Your task to perform on an android device: How much does a 3 bedroom apartment rent for in Boston? Image 0: 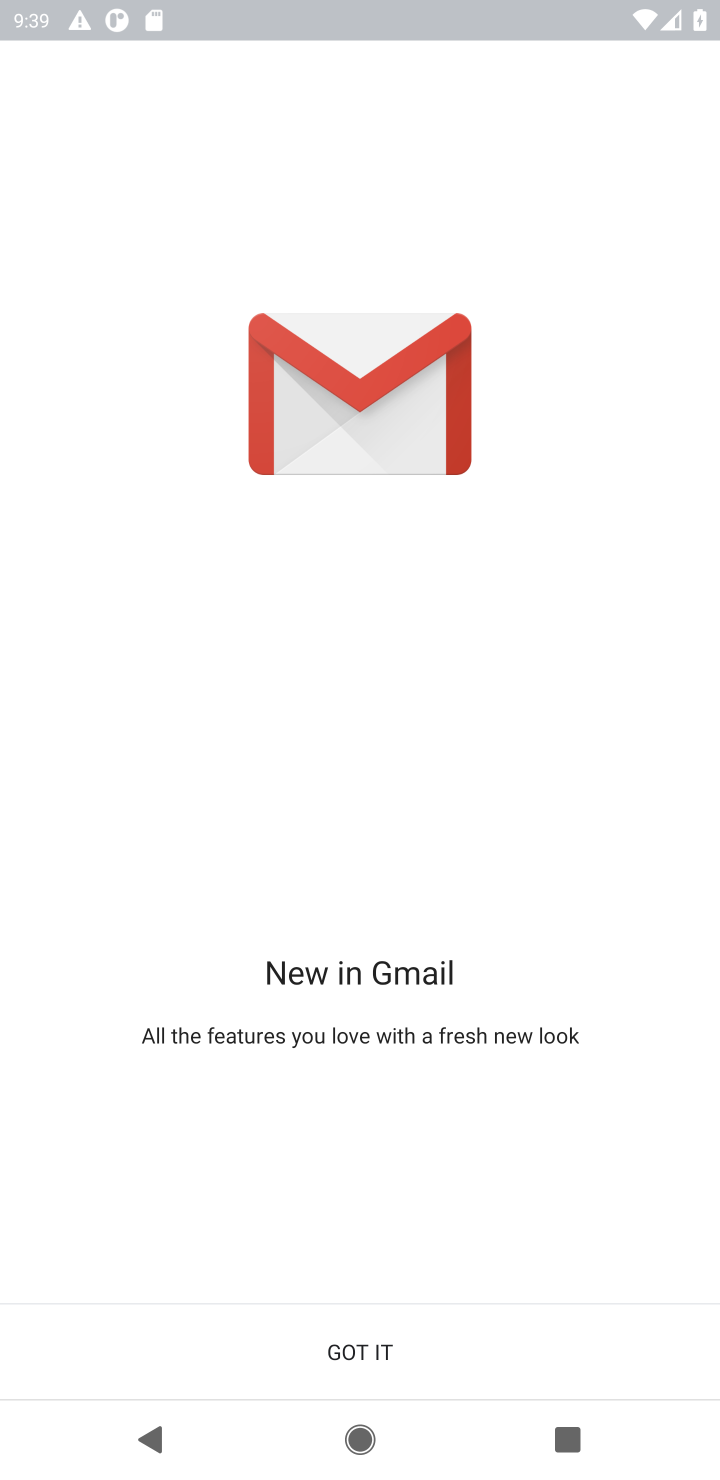
Step 0: press home button
Your task to perform on an android device: How much does a 3 bedroom apartment rent for in Boston? Image 1: 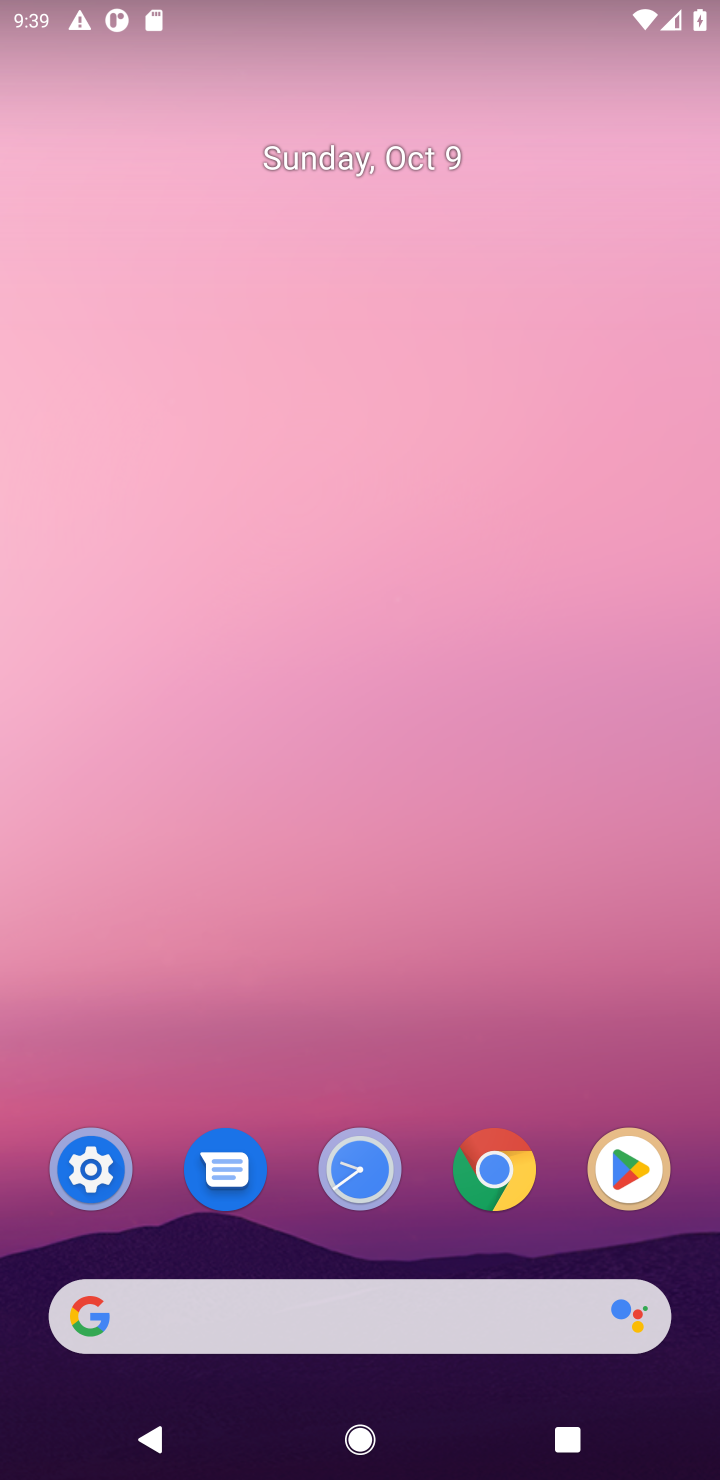
Step 1: click (254, 1305)
Your task to perform on an android device: How much does a 3 bedroom apartment rent for in Boston? Image 2: 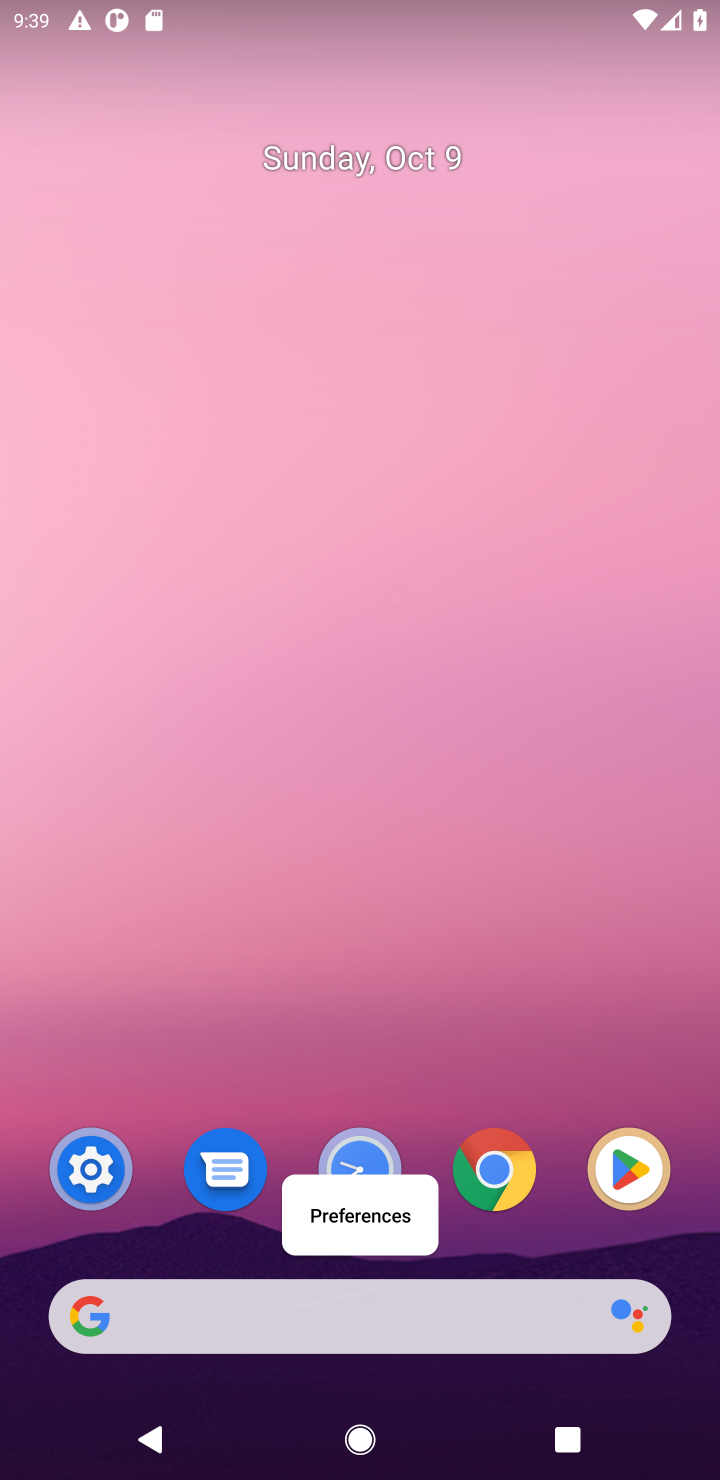
Step 2: click (267, 1312)
Your task to perform on an android device: How much does a 3 bedroom apartment rent for in Boston? Image 3: 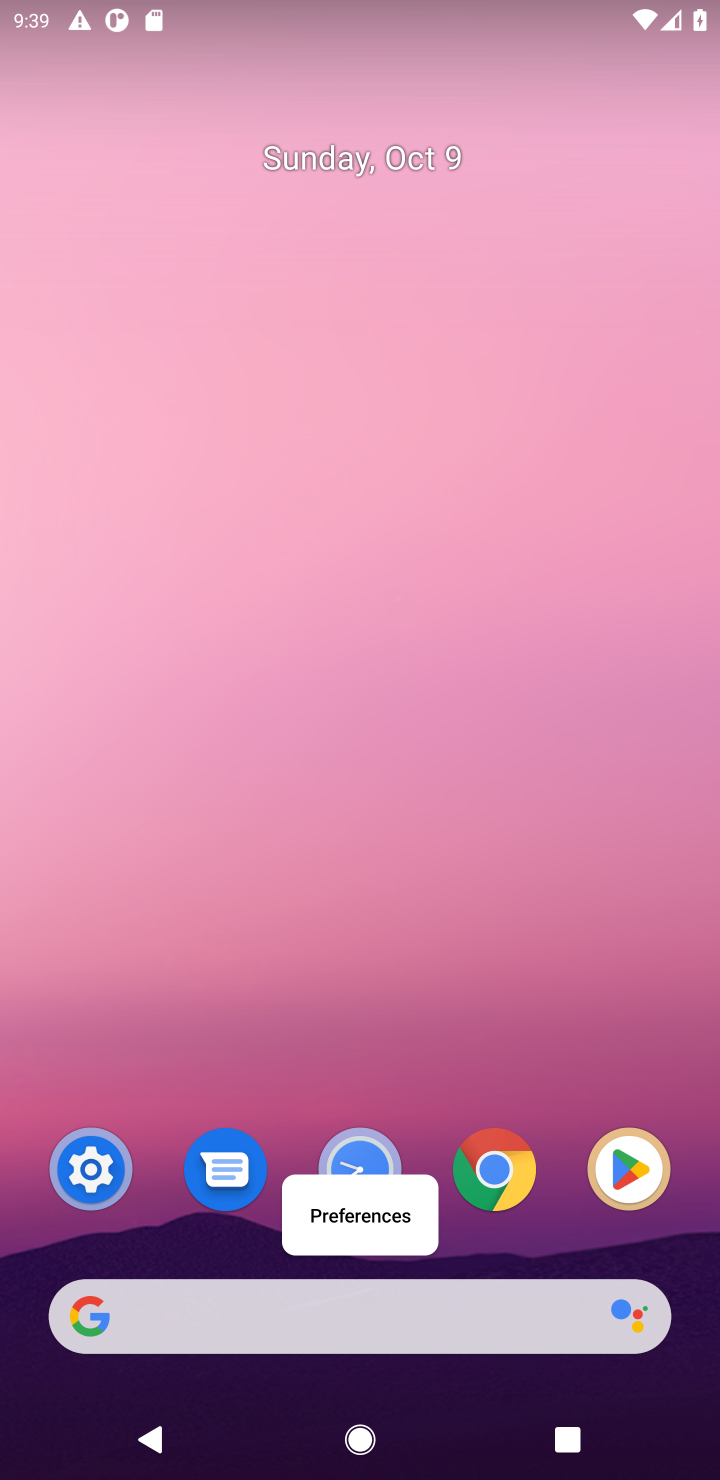
Step 3: click (260, 1322)
Your task to perform on an android device: How much does a 3 bedroom apartment rent for in Boston? Image 4: 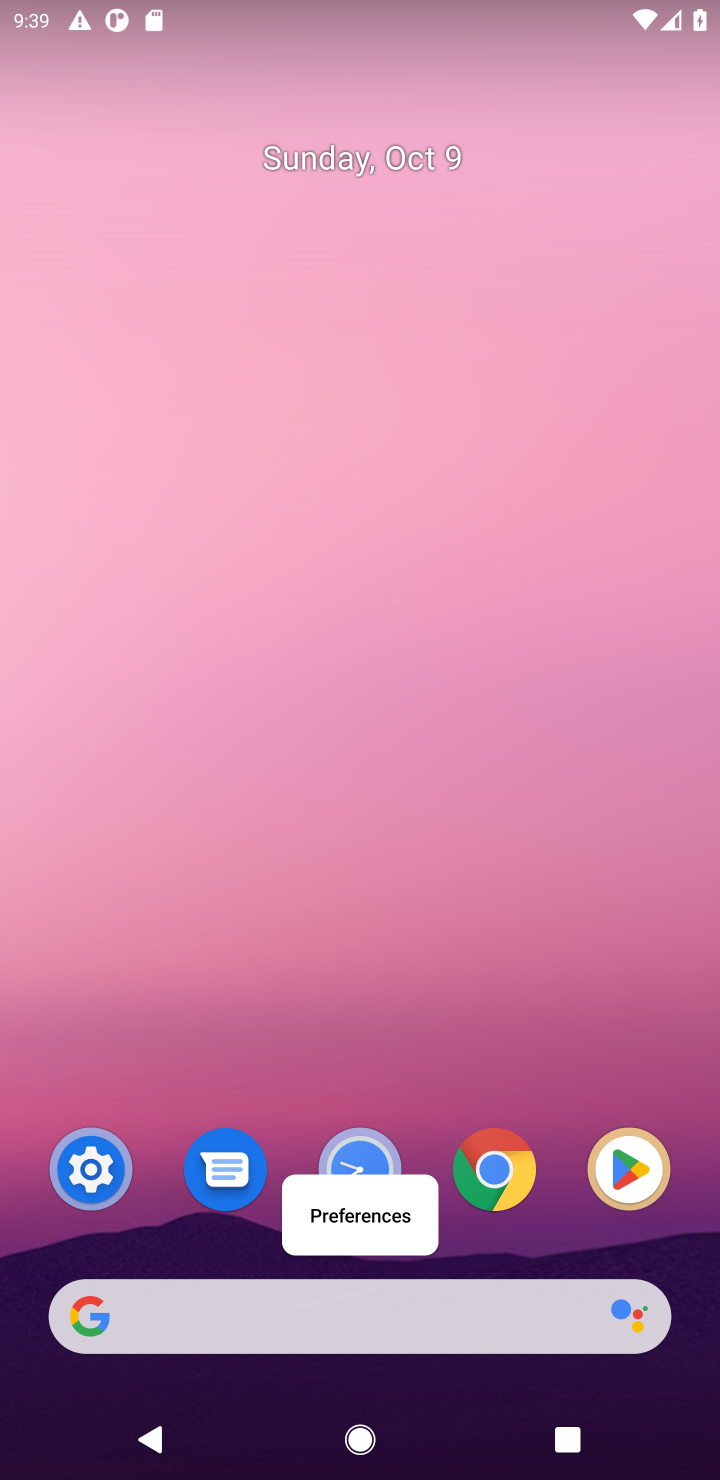
Step 4: drag from (339, 933) to (438, 21)
Your task to perform on an android device: How much does a 3 bedroom apartment rent for in Boston? Image 5: 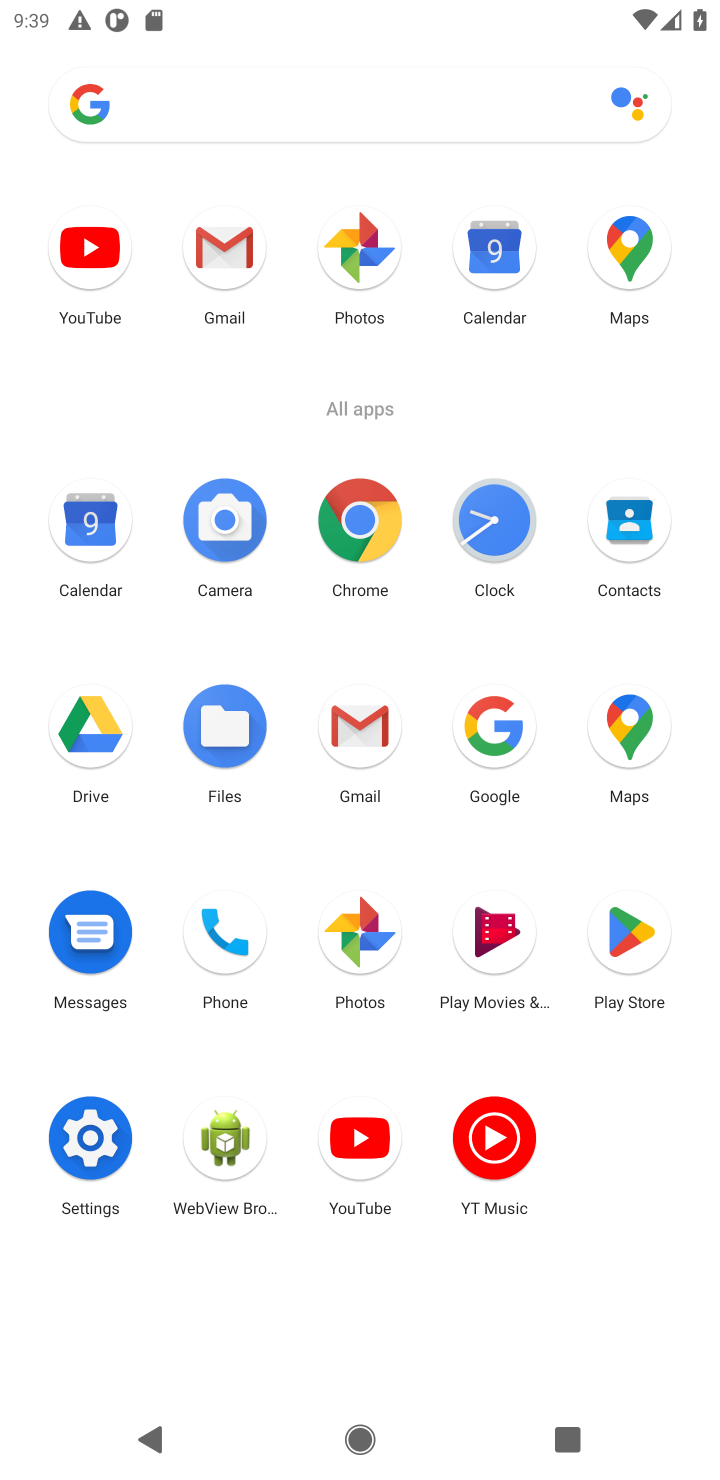
Step 5: click (513, 741)
Your task to perform on an android device: How much does a 3 bedroom apartment rent for in Boston? Image 6: 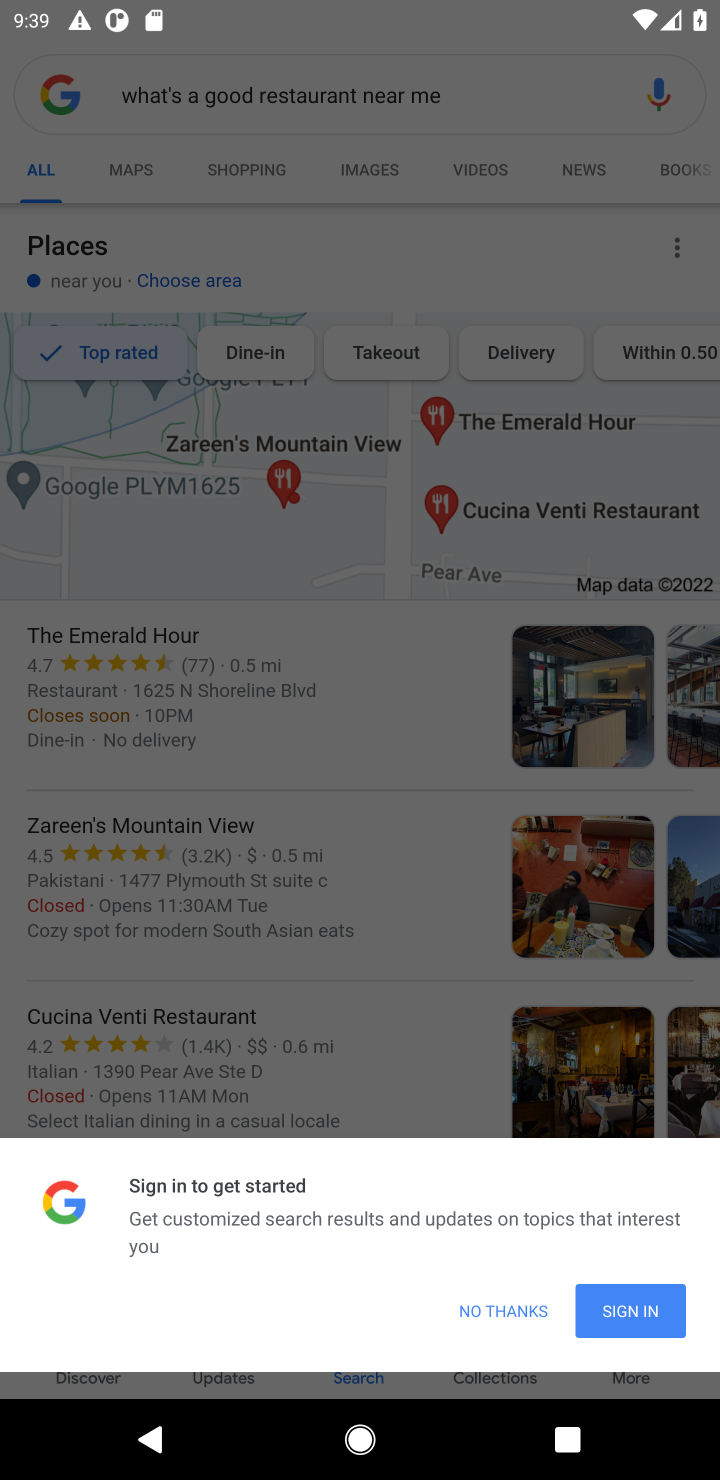
Step 6: click (521, 1307)
Your task to perform on an android device: How much does a 3 bedroom apartment rent for in Boston? Image 7: 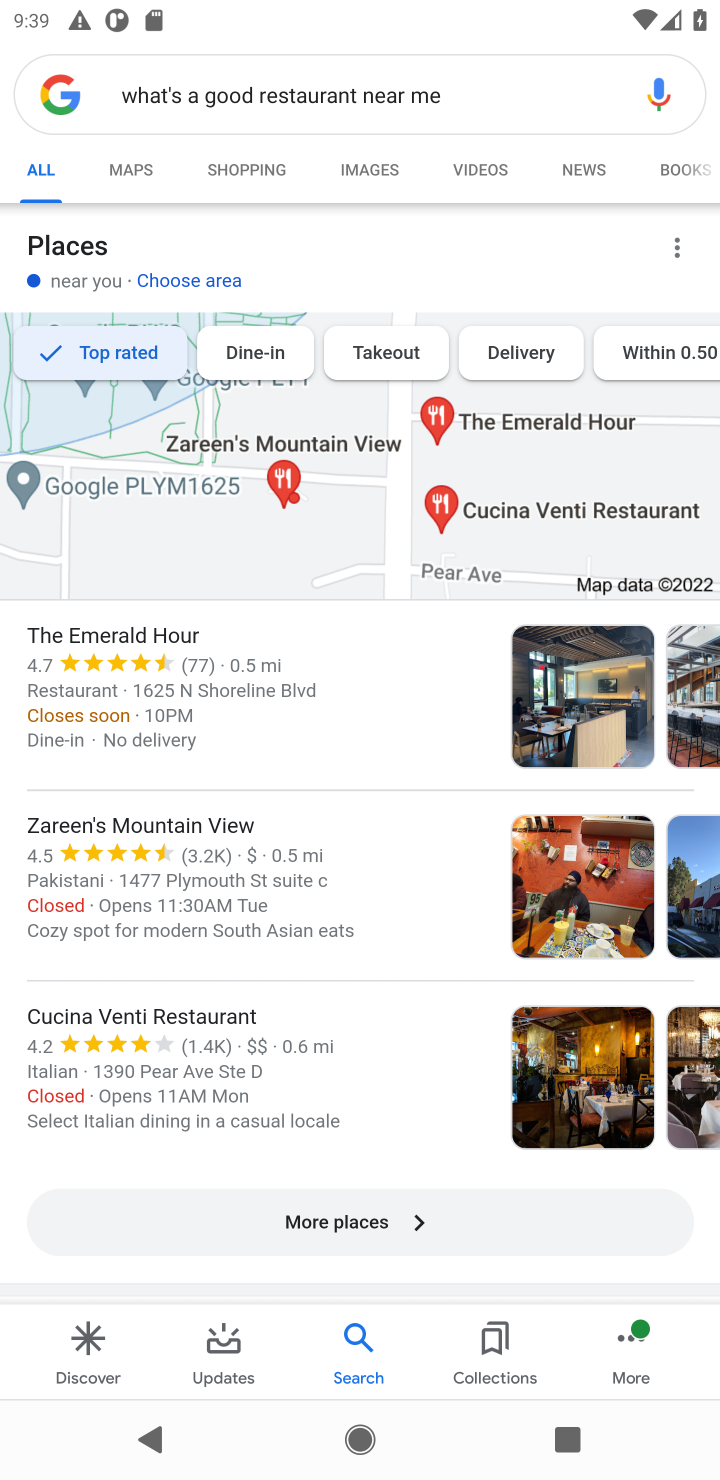
Step 7: click (512, 84)
Your task to perform on an android device: How much does a 3 bedroom apartment rent for in Boston? Image 8: 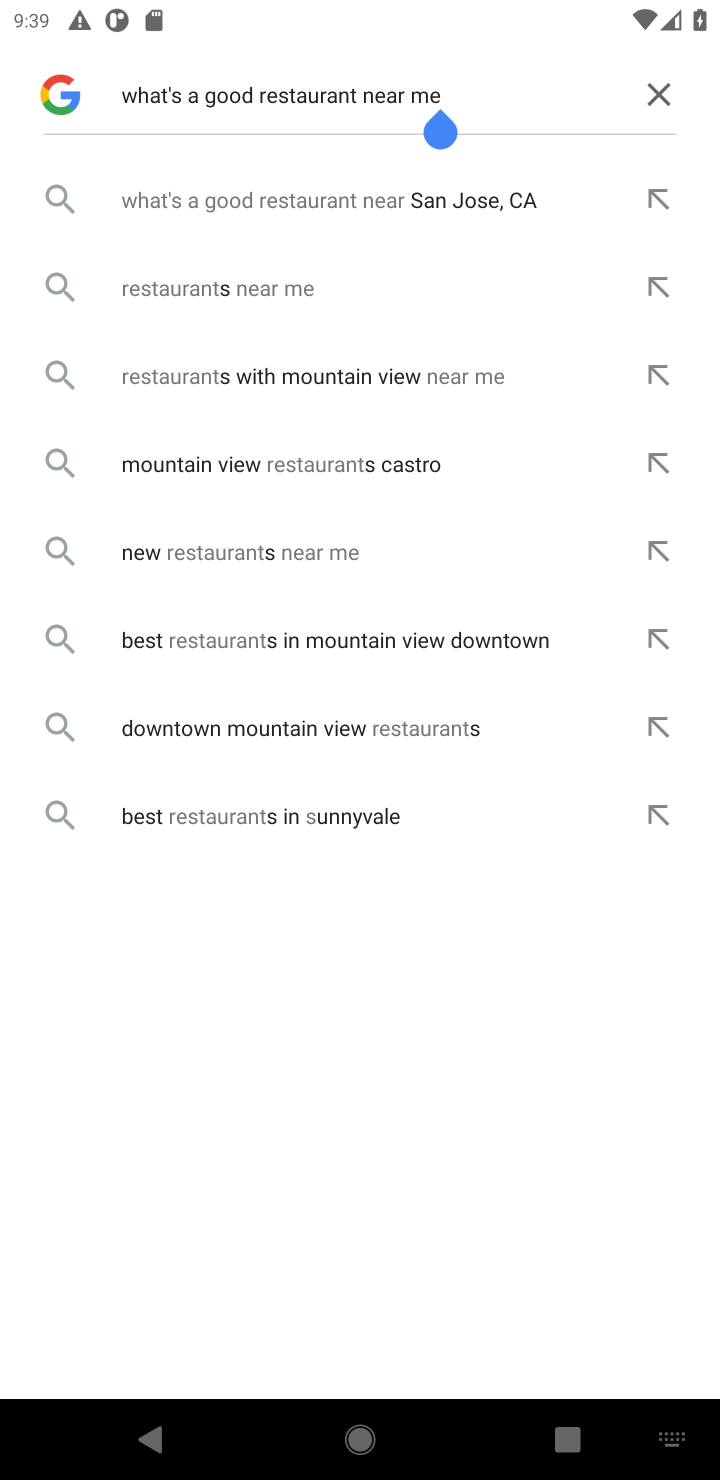
Step 8: click (676, 98)
Your task to perform on an android device: How much does a 3 bedroom apartment rent for in Boston? Image 9: 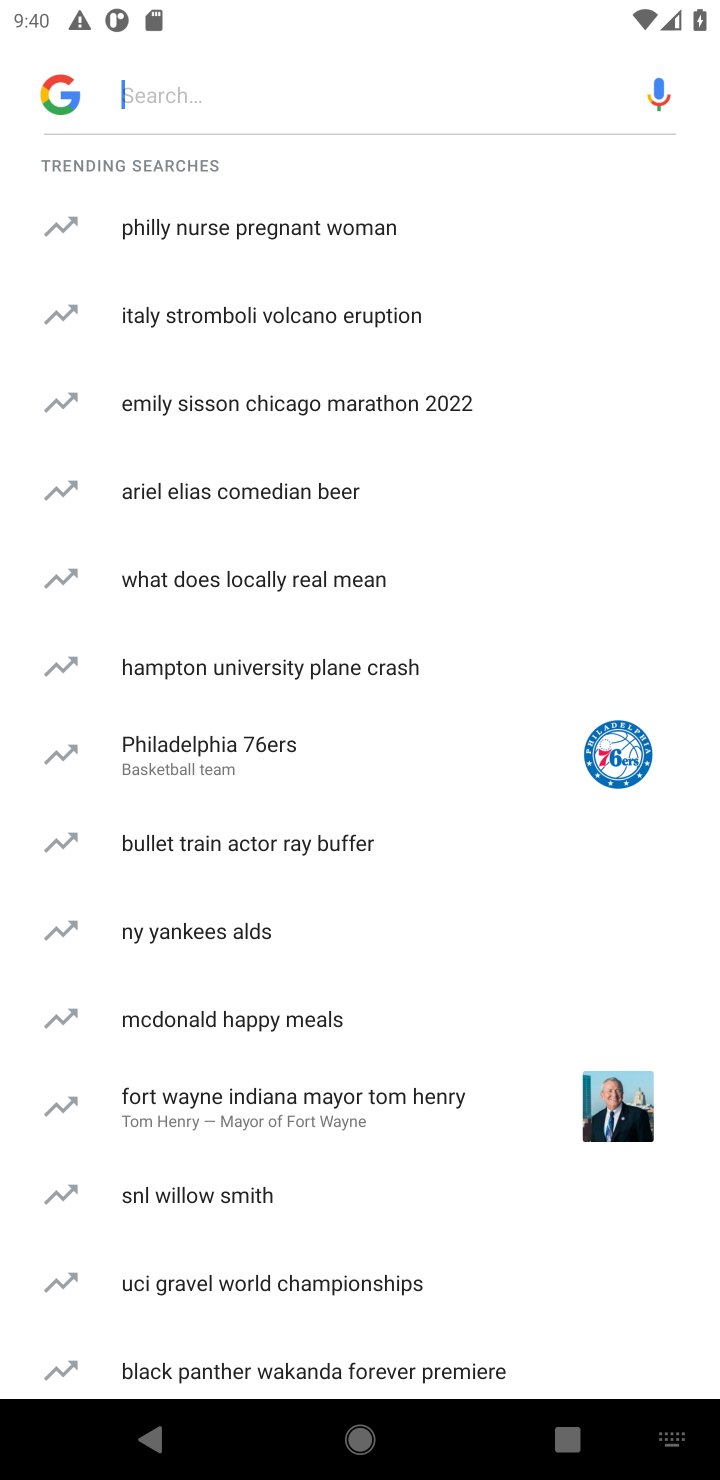
Step 9: click (318, 96)
Your task to perform on an android device: How much does a 3 bedroom apartment rent for in Boston? Image 10: 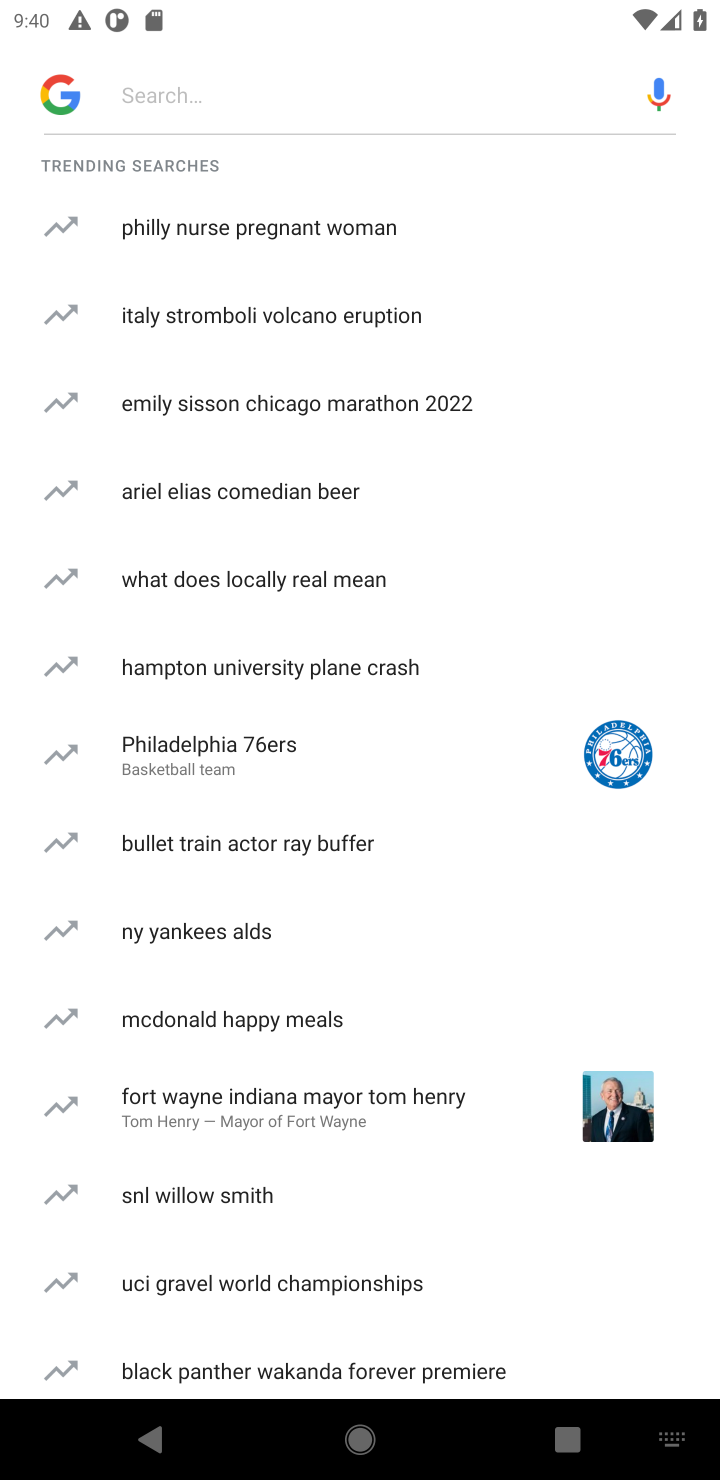
Step 10: type "How much does a 3 bedroom apartment rent for in Boston"
Your task to perform on an android device: How much does a 3 bedroom apartment rent for in Boston? Image 11: 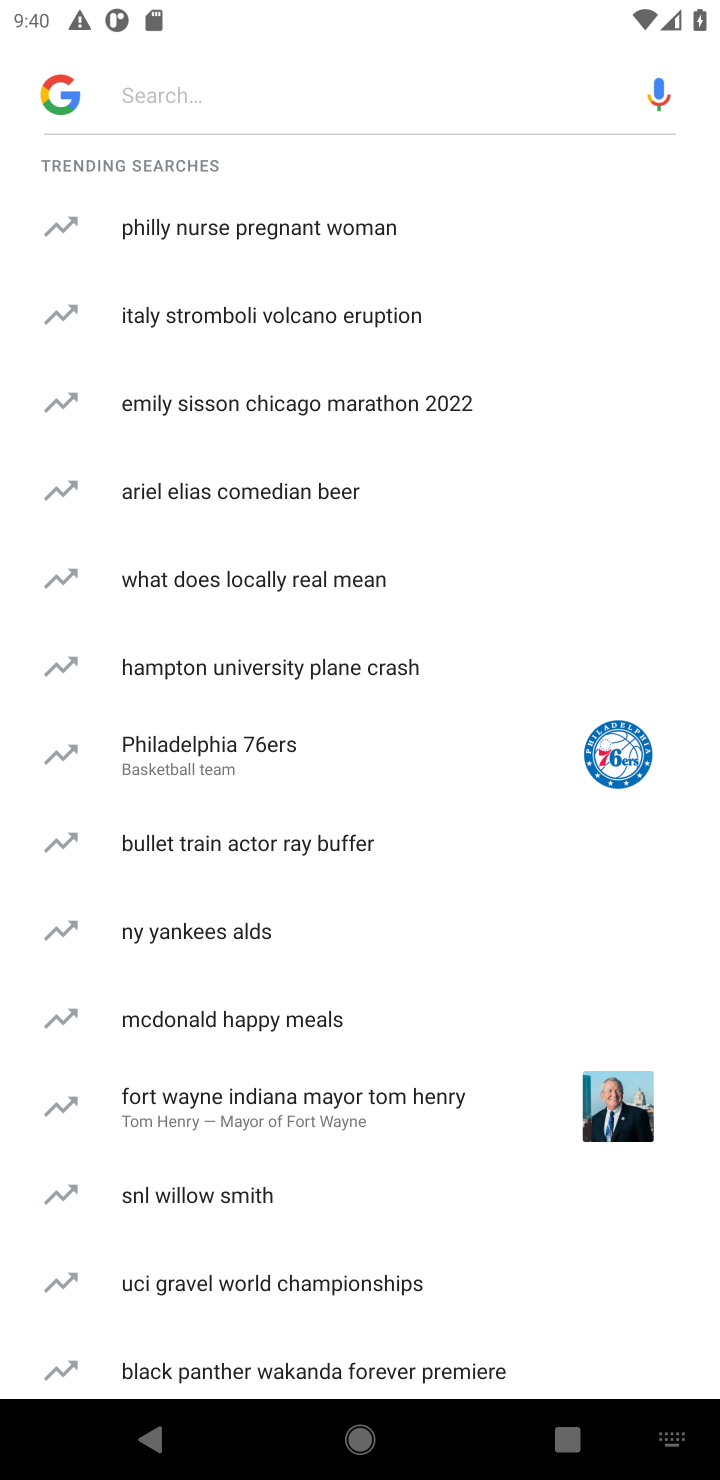
Step 11: click (250, 96)
Your task to perform on an android device: How much does a 3 bedroom apartment rent for in Boston? Image 12: 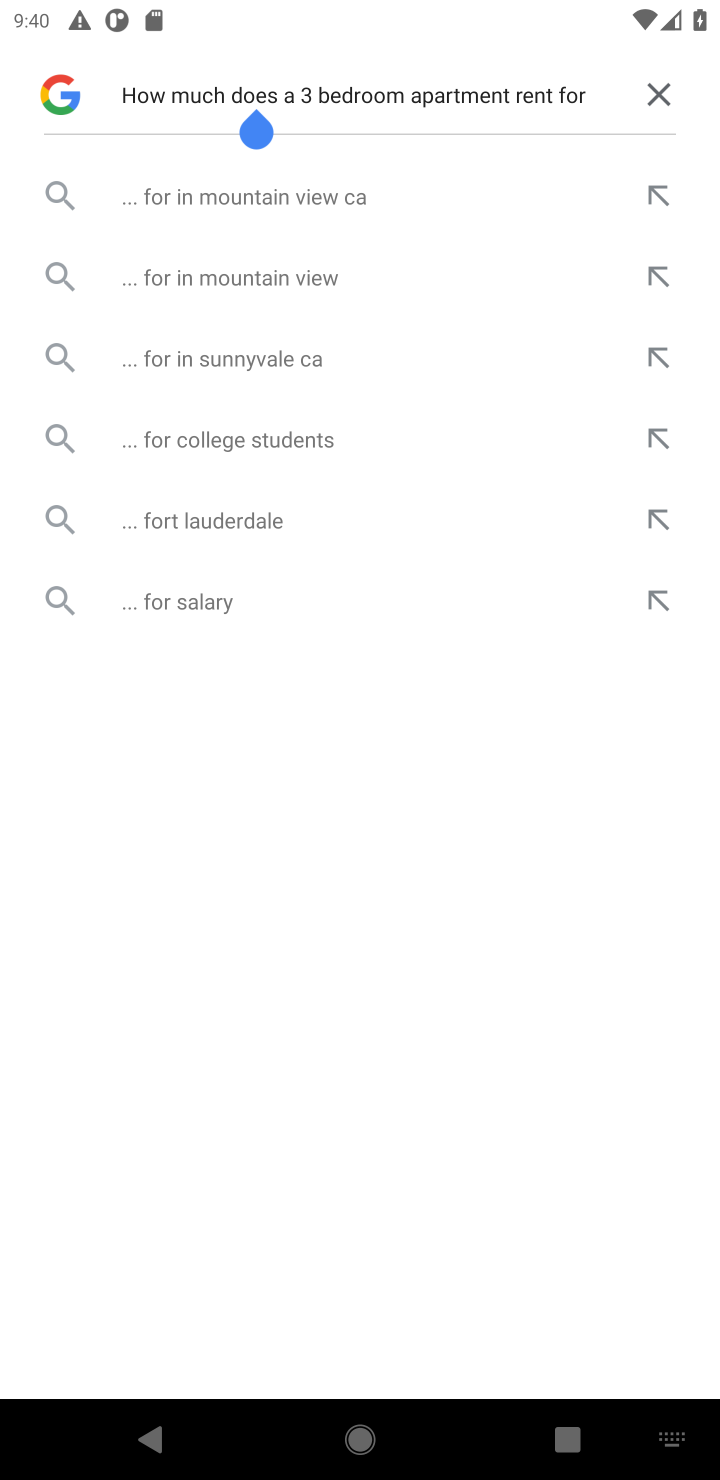
Step 12: click (595, 95)
Your task to perform on an android device: How much does a 3 bedroom apartment rent for in Boston? Image 13: 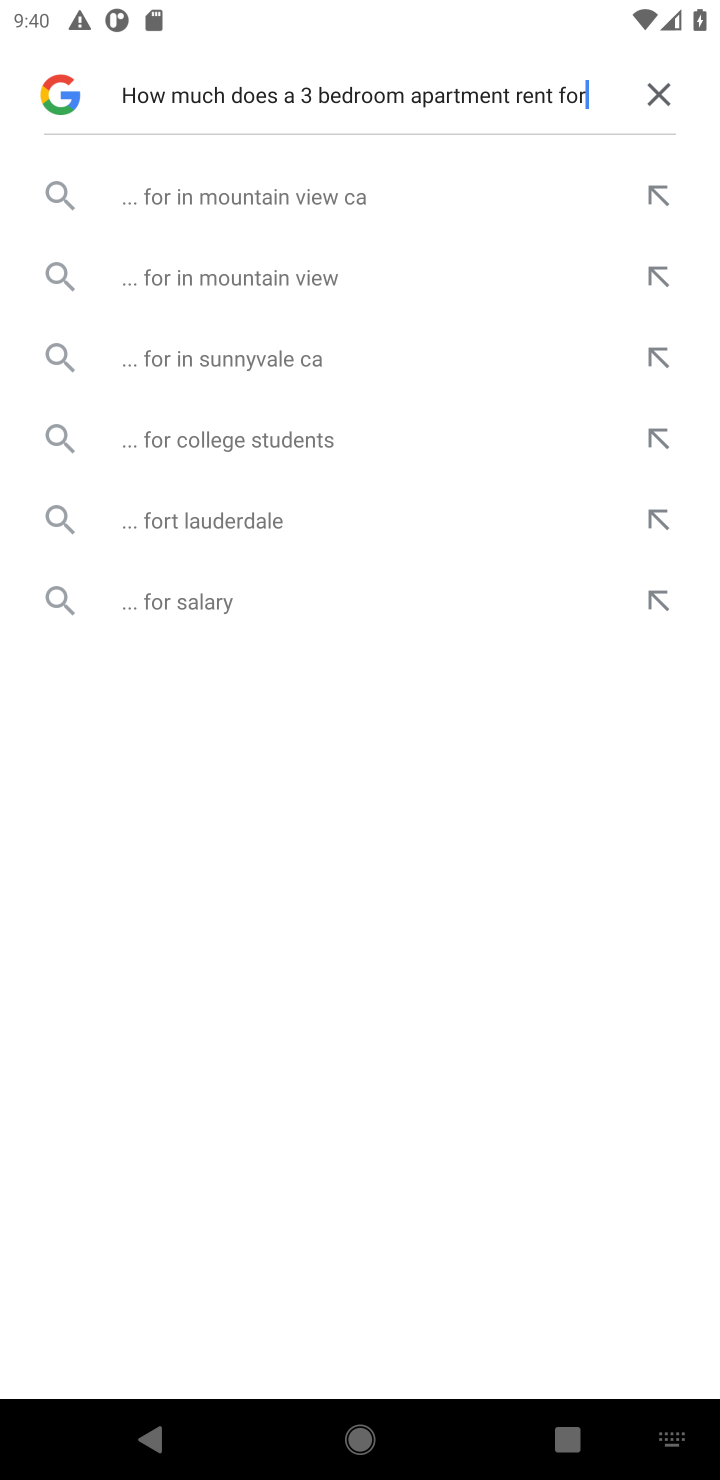
Step 13: task complete